Your task to perform on an android device: View the shopping cart on costco.com. Search for razer nari on costco.com, select the first entry, and add it to the cart. Image 0: 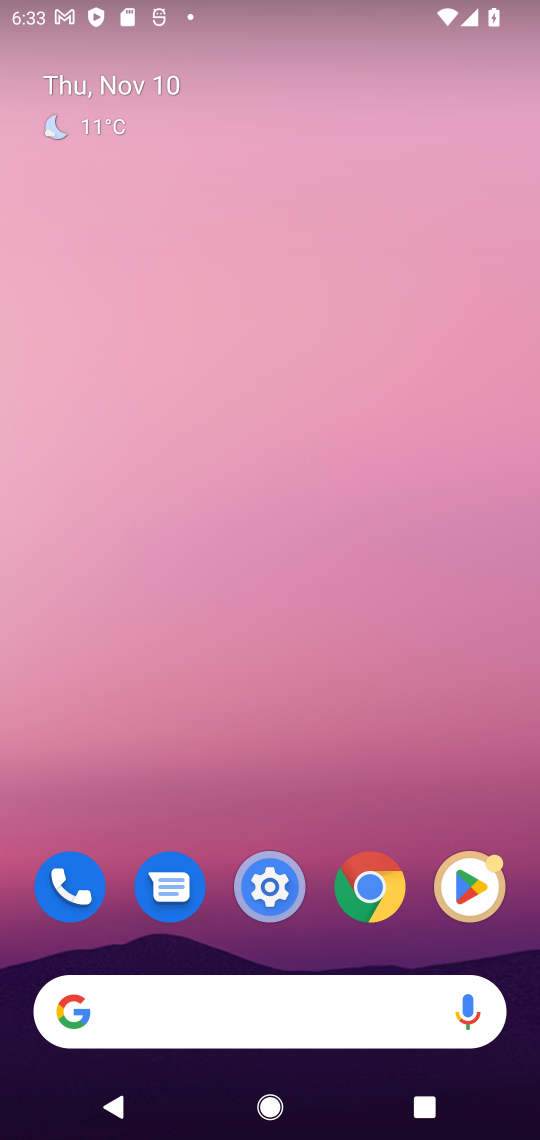
Step 0: click (220, 999)
Your task to perform on an android device: View the shopping cart on costco.com. Search for razer nari on costco.com, select the first entry, and add it to the cart. Image 1: 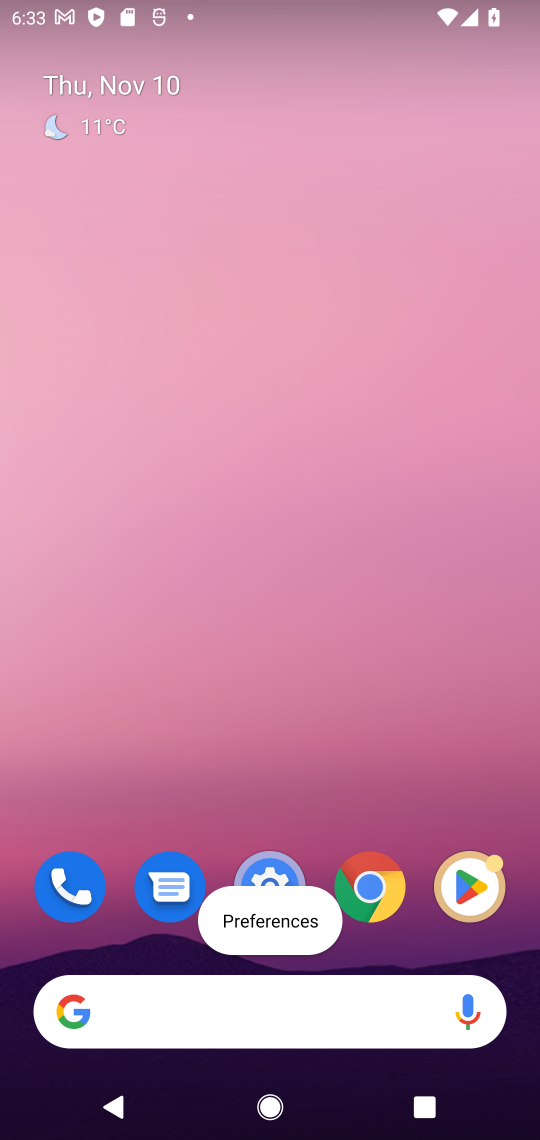
Step 1: click (76, 1006)
Your task to perform on an android device: View the shopping cart on costco.com. Search for razer nari on costco.com, select the first entry, and add it to the cart. Image 2: 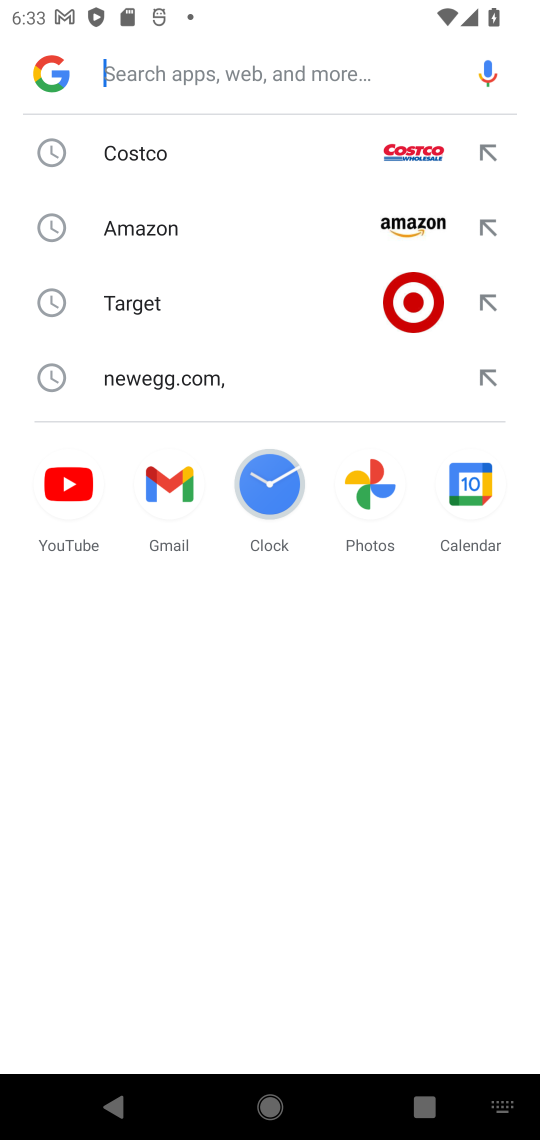
Step 2: click (117, 157)
Your task to perform on an android device: View the shopping cart on costco.com. Search for razer nari on costco.com, select the first entry, and add it to the cart. Image 3: 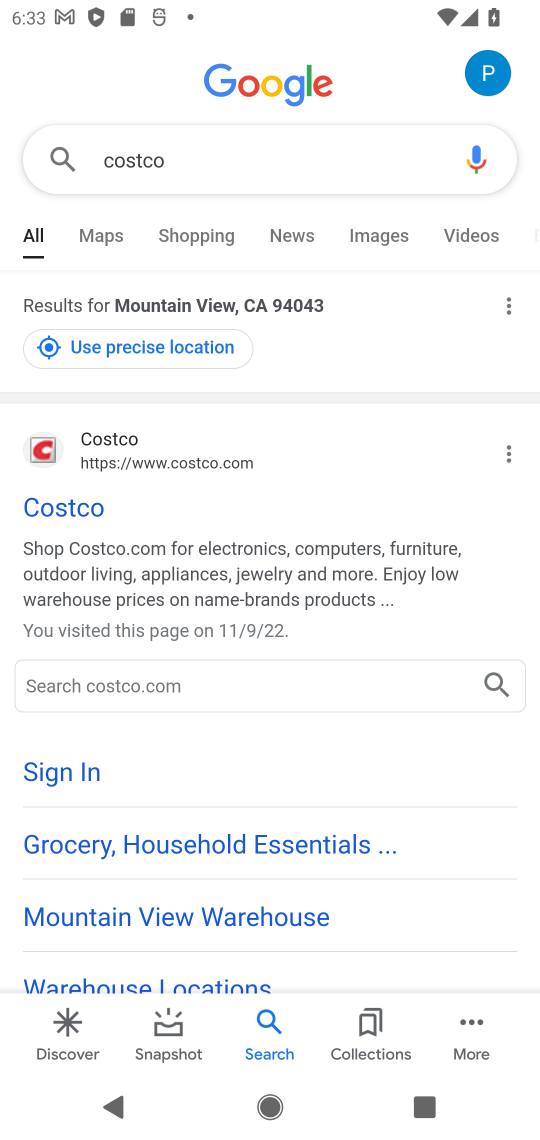
Step 3: click (75, 444)
Your task to perform on an android device: View the shopping cart on costco.com. Search for razer nari on costco.com, select the first entry, and add it to the cart. Image 4: 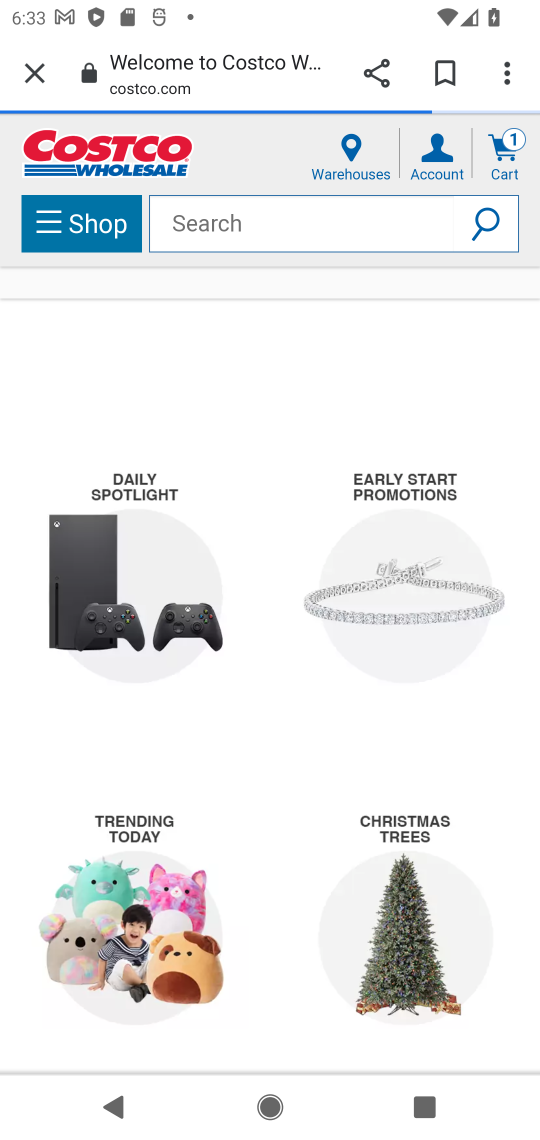
Step 4: click (185, 221)
Your task to perform on an android device: View the shopping cart on costco.com. Search for razer nari on costco.com, select the first entry, and add it to the cart. Image 5: 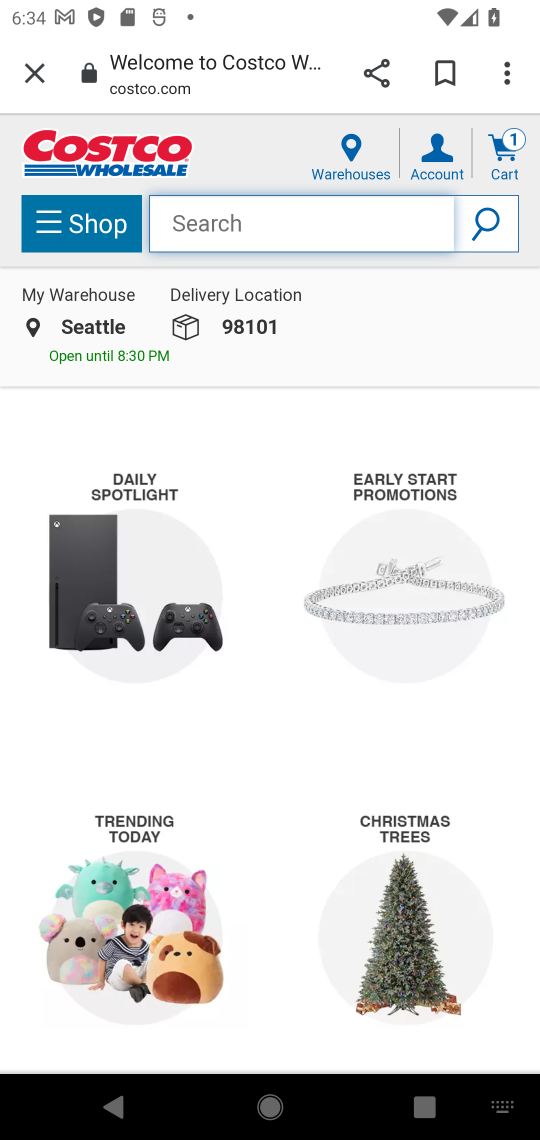
Step 5: type "razer nari"
Your task to perform on an android device: View the shopping cart on costco.com. Search for razer nari on costco.com, select the first entry, and add it to the cart. Image 6: 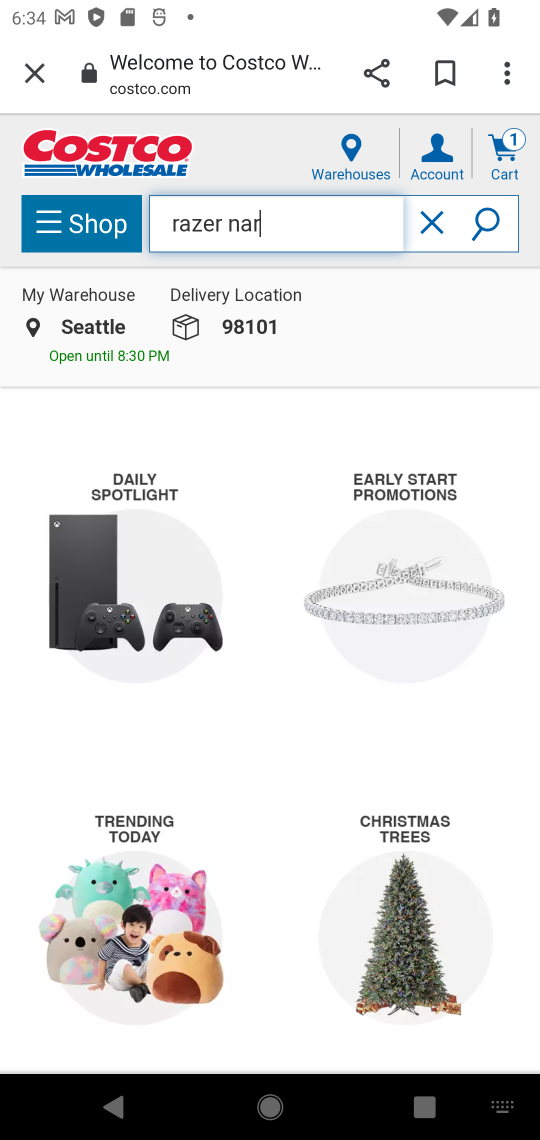
Step 6: type ""
Your task to perform on an android device: View the shopping cart on costco.com. Search for razer nari on costco.com, select the first entry, and add it to the cart. Image 7: 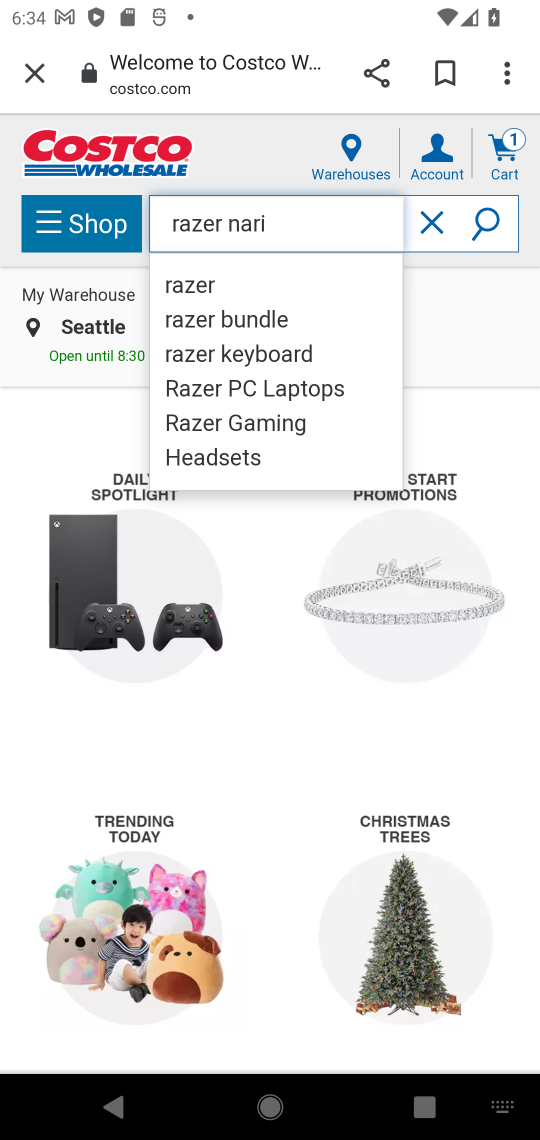
Step 7: click (494, 216)
Your task to perform on an android device: View the shopping cart on costco.com. Search for razer nari on costco.com, select the first entry, and add it to the cart. Image 8: 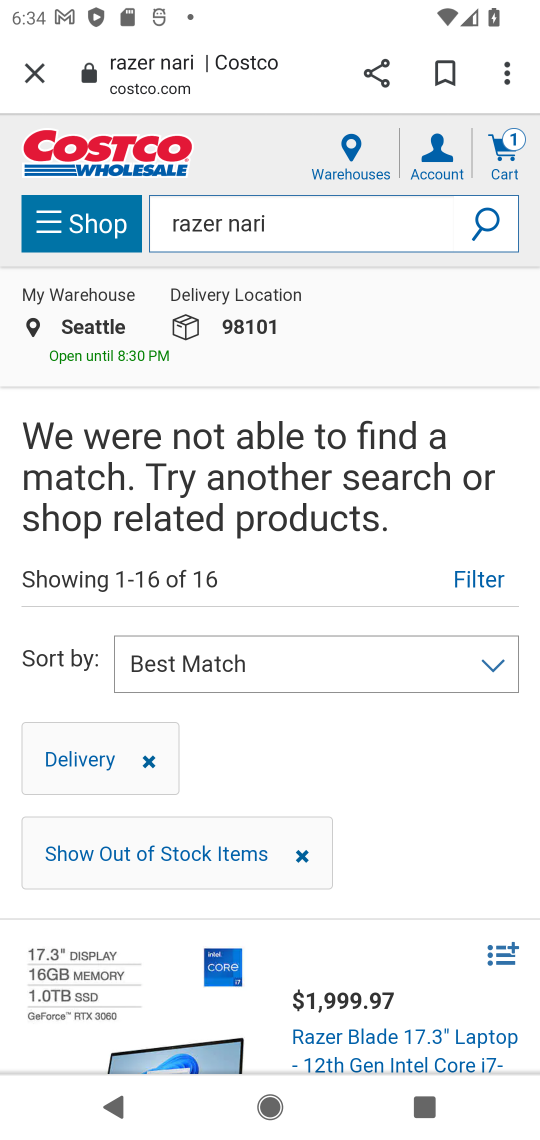
Step 8: task complete